Your task to perform on an android device: Go to location settings Image 0: 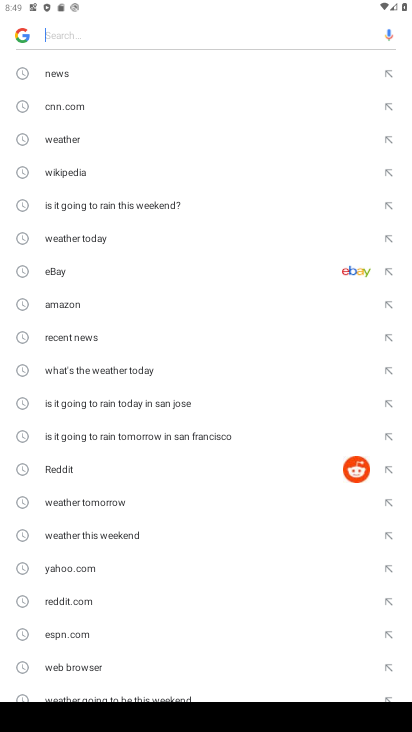
Step 0: press home button
Your task to perform on an android device: Go to location settings Image 1: 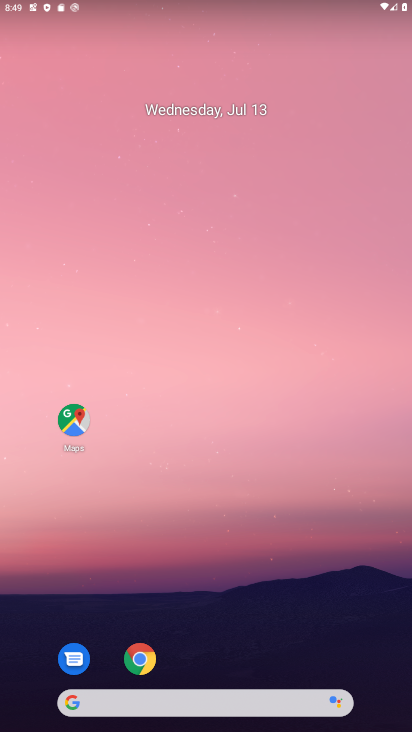
Step 1: drag from (215, 674) to (168, 159)
Your task to perform on an android device: Go to location settings Image 2: 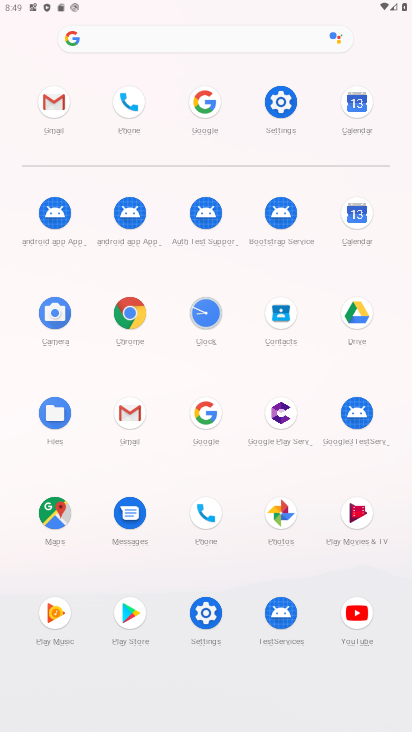
Step 2: click (285, 110)
Your task to perform on an android device: Go to location settings Image 3: 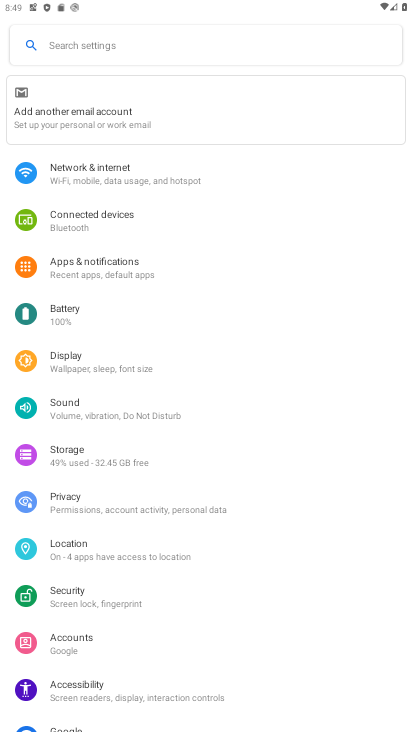
Step 3: click (112, 552)
Your task to perform on an android device: Go to location settings Image 4: 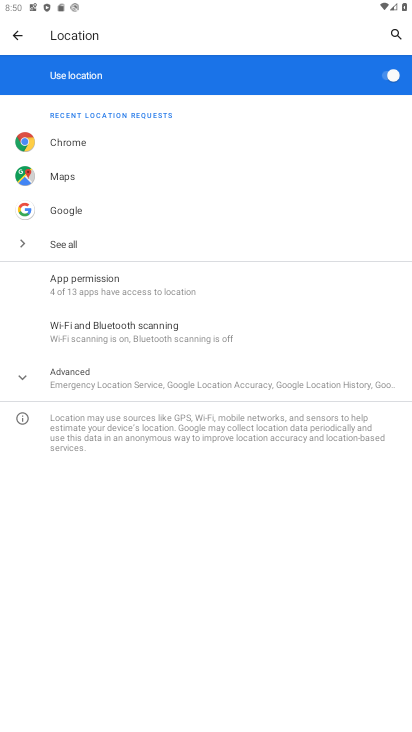
Step 4: task complete